Your task to perform on an android device: refresh tabs in the chrome app Image 0: 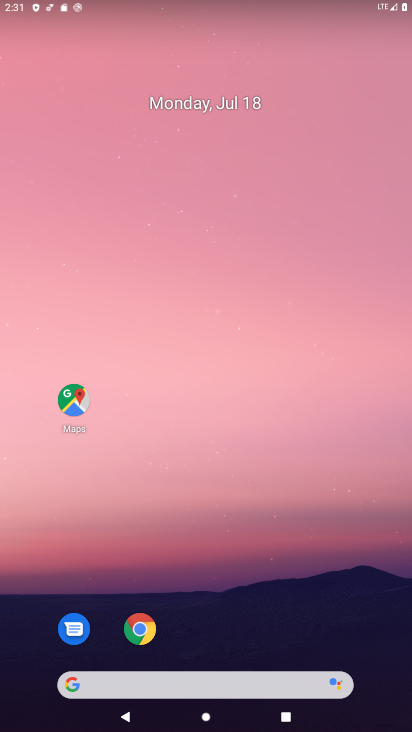
Step 0: drag from (190, 677) to (255, 254)
Your task to perform on an android device: refresh tabs in the chrome app Image 1: 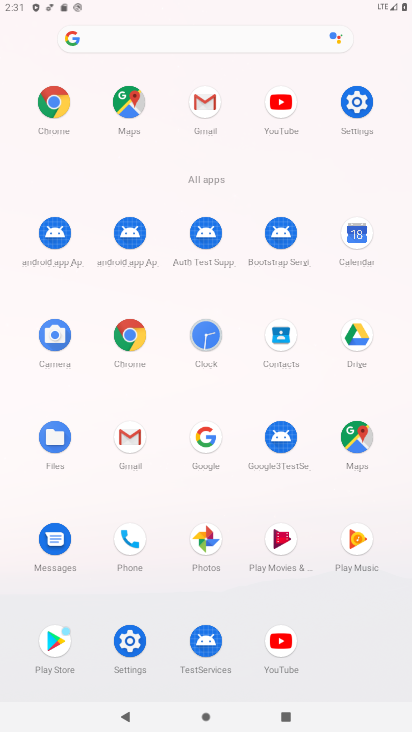
Step 1: click (126, 332)
Your task to perform on an android device: refresh tabs in the chrome app Image 2: 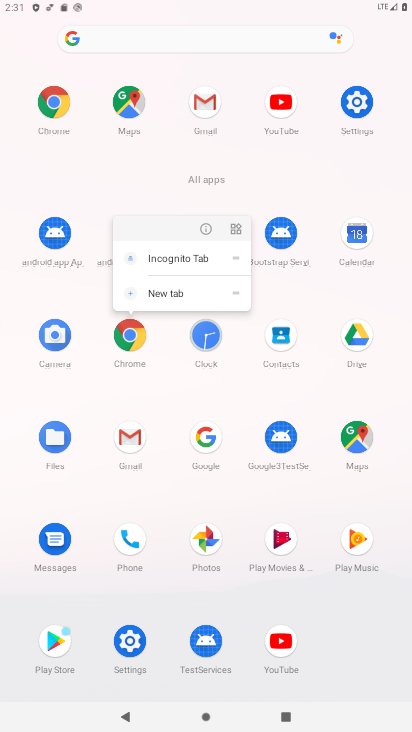
Step 2: click (133, 333)
Your task to perform on an android device: refresh tabs in the chrome app Image 3: 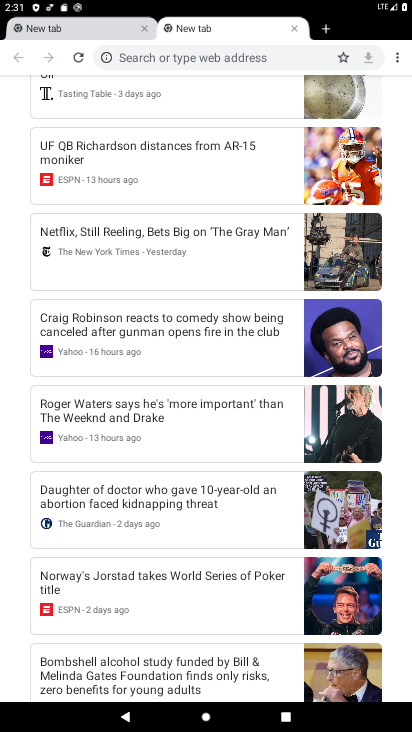
Step 3: click (78, 54)
Your task to perform on an android device: refresh tabs in the chrome app Image 4: 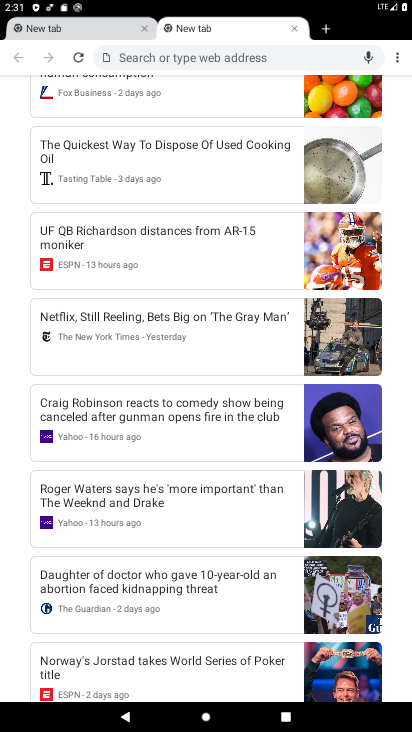
Step 4: task complete